Your task to perform on an android device: Open Google Image 0: 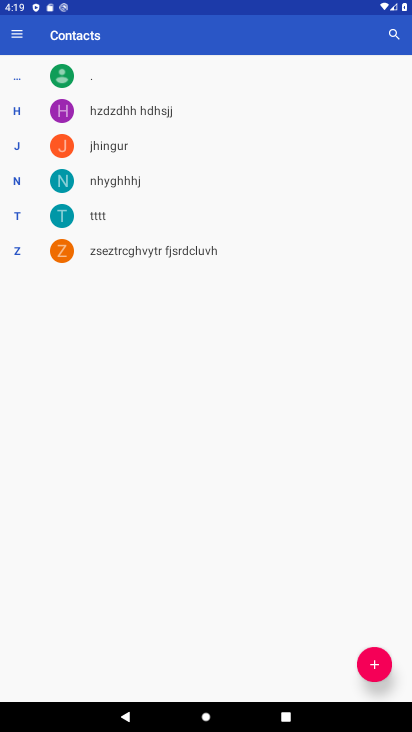
Step 0: press home button
Your task to perform on an android device: Open Google Image 1: 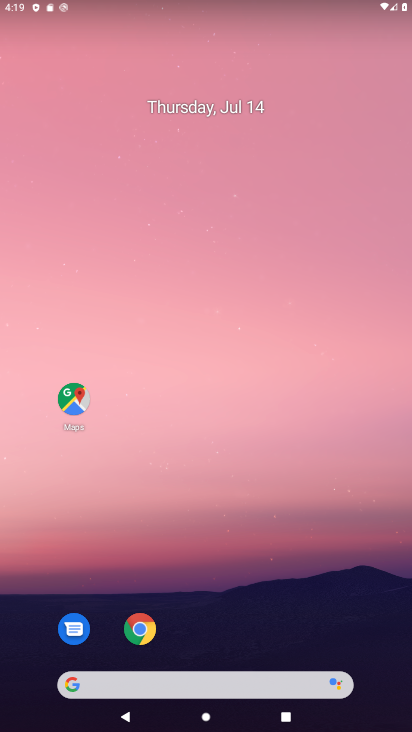
Step 1: click (100, 677)
Your task to perform on an android device: Open Google Image 2: 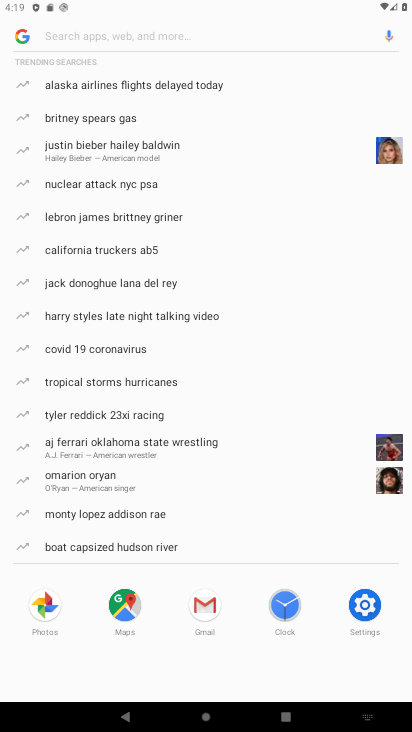
Step 2: task complete